Your task to perform on an android device: open the mobile data screen to see how much data has been used Image 0: 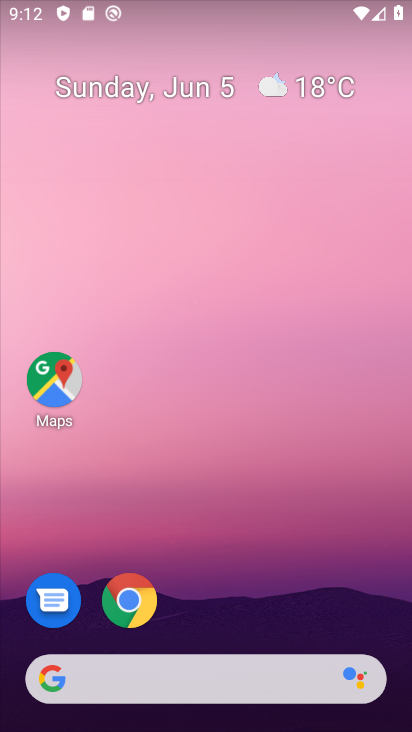
Step 0: drag from (274, 537) to (220, 72)
Your task to perform on an android device: open the mobile data screen to see how much data has been used Image 1: 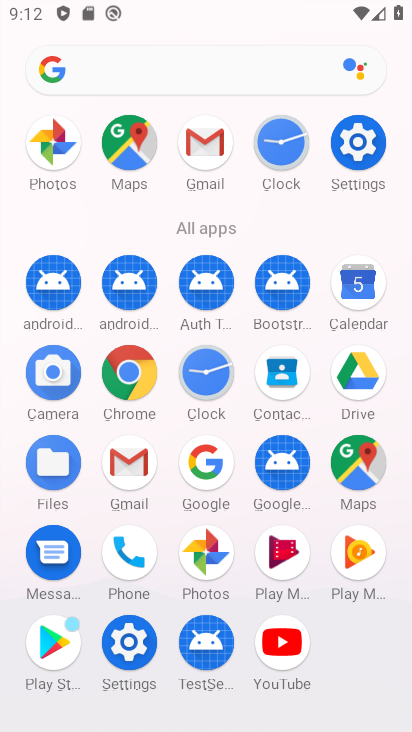
Step 1: click (360, 156)
Your task to perform on an android device: open the mobile data screen to see how much data has been used Image 2: 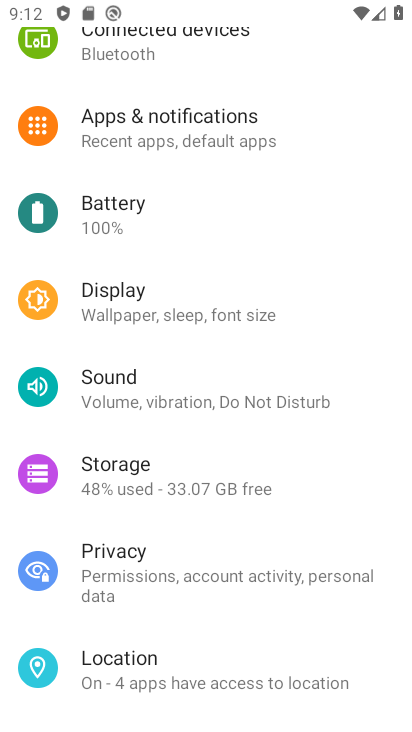
Step 2: drag from (165, 167) to (200, 578)
Your task to perform on an android device: open the mobile data screen to see how much data has been used Image 3: 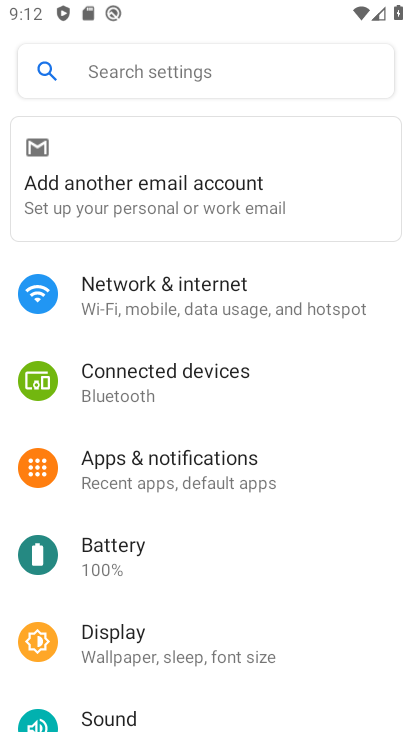
Step 3: click (164, 300)
Your task to perform on an android device: open the mobile data screen to see how much data has been used Image 4: 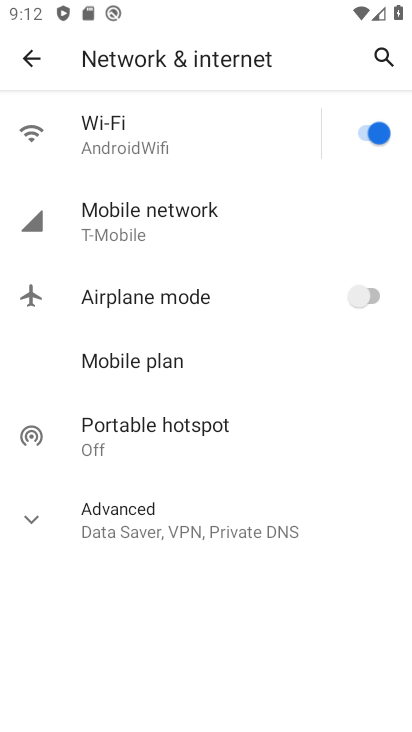
Step 4: click (198, 238)
Your task to perform on an android device: open the mobile data screen to see how much data has been used Image 5: 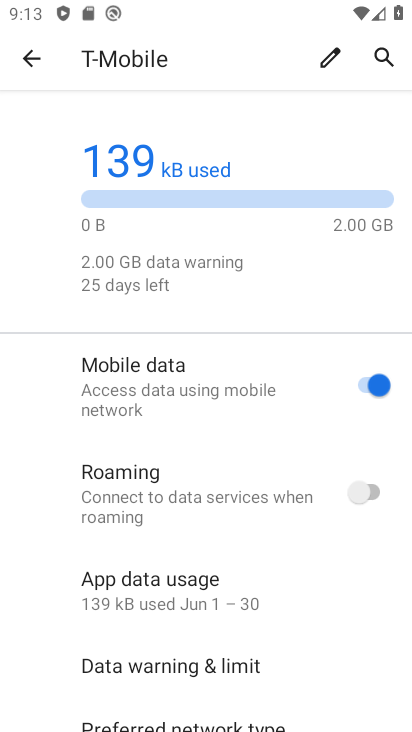
Step 5: task complete